Your task to perform on an android device: What's the weather? Image 0: 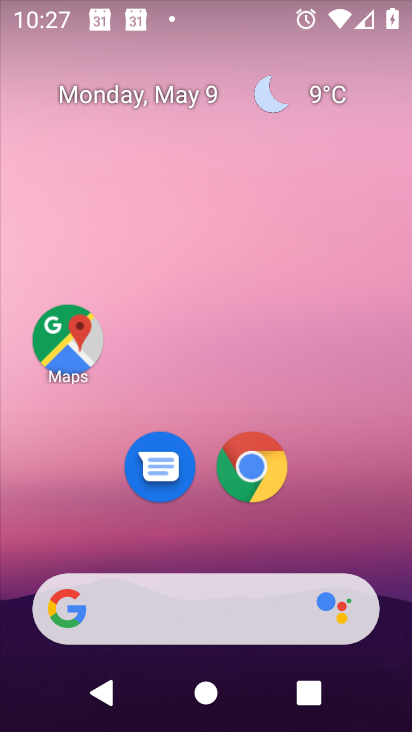
Step 0: click (331, 102)
Your task to perform on an android device: What's the weather? Image 1: 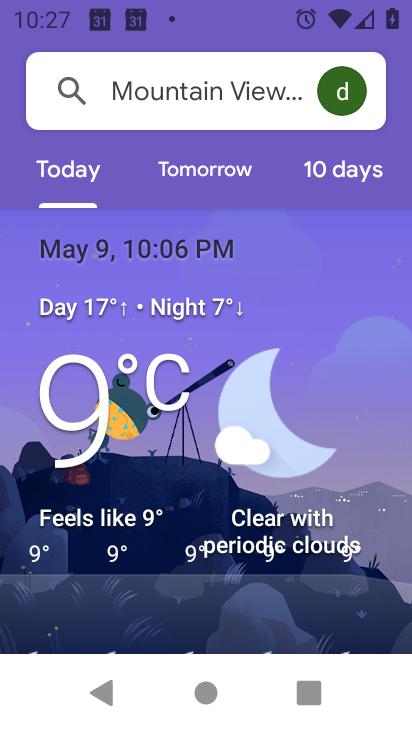
Step 1: task complete